Your task to perform on an android device: remove spam from my inbox in the gmail app Image 0: 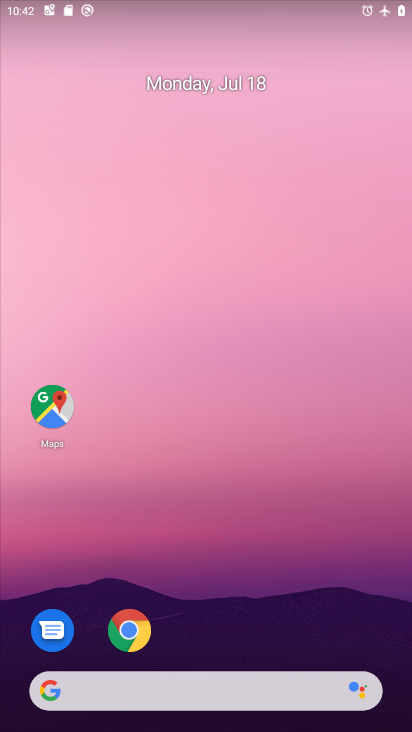
Step 0: drag from (208, 628) to (191, 135)
Your task to perform on an android device: remove spam from my inbox in the gmail app Image 1: 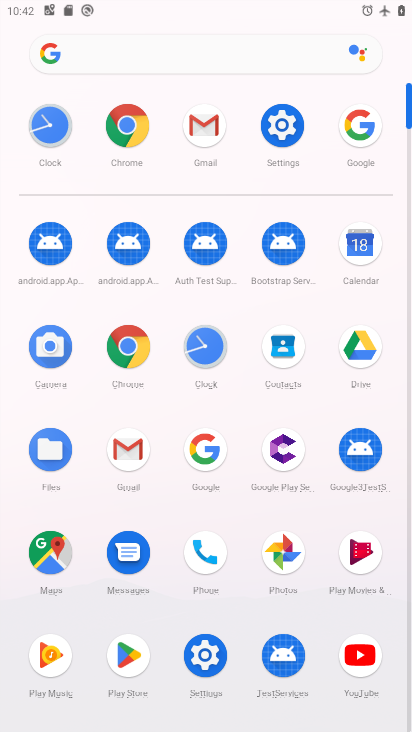
Step 1: click (191, 129)
Your task to perform on an android device: remove spam from my inbox in the gmail app Image 2: 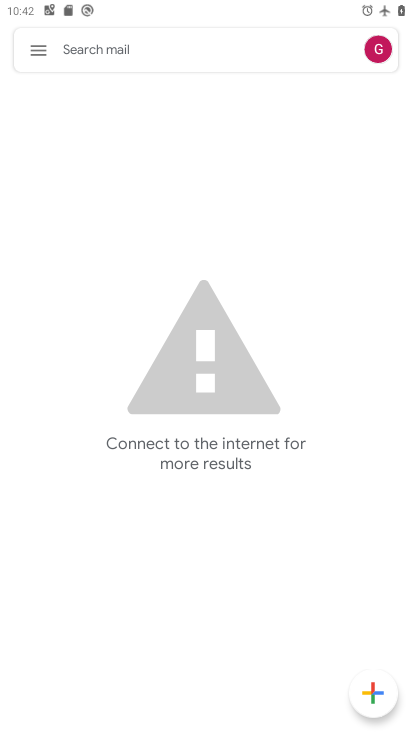
Step 2: click (36, 57)
Your task to perform on an android device: remove spam from my inbox in the gmail app Image 3: 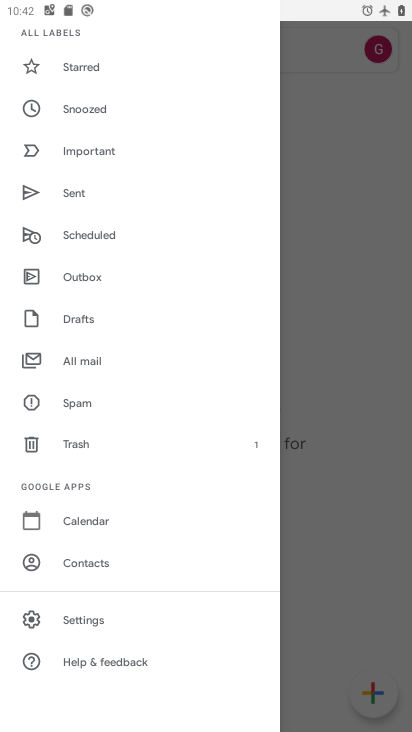
Step 3: click (87, 404)
Your task to perform on an android device: remove spam from my inbox in the gmail app Image 4: 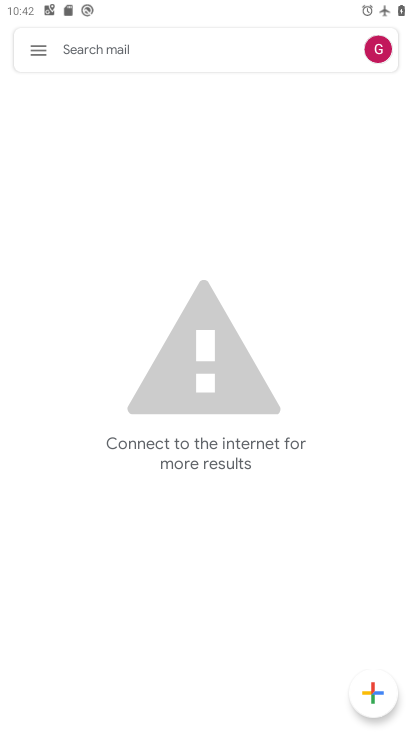
Step 4: task complete